Your task to perform on an android device: Search for Mexican restaurants on Maps Image 0: 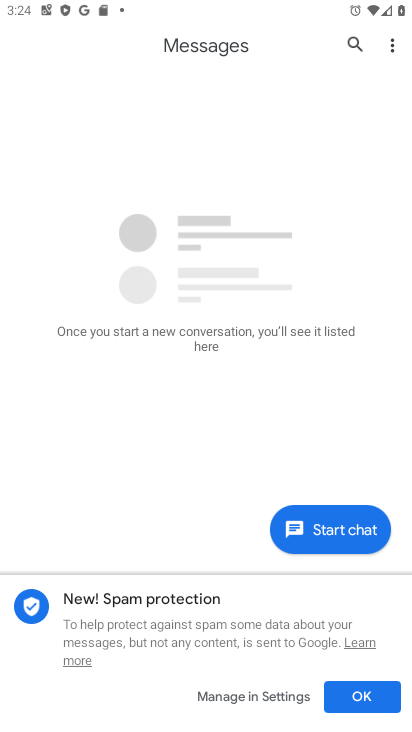
Step 0: press home button
Your task to perform on an android device: Search for Mexican restaurants on Maps Image 1: 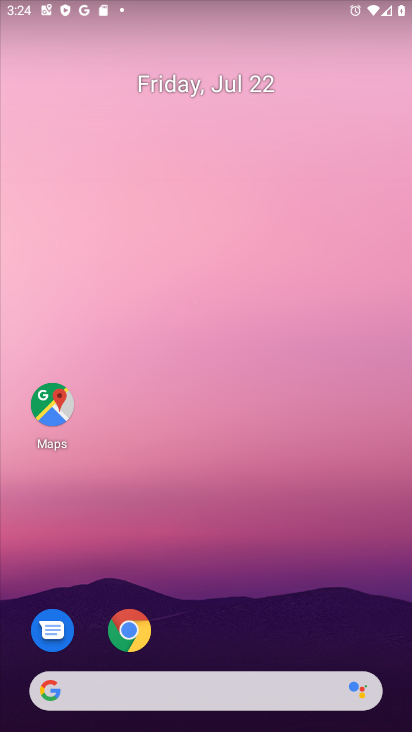
Step 1: click (47, 411)
Your task to perform on an android device: Search for Mexican restaurants on Maps Image 2: 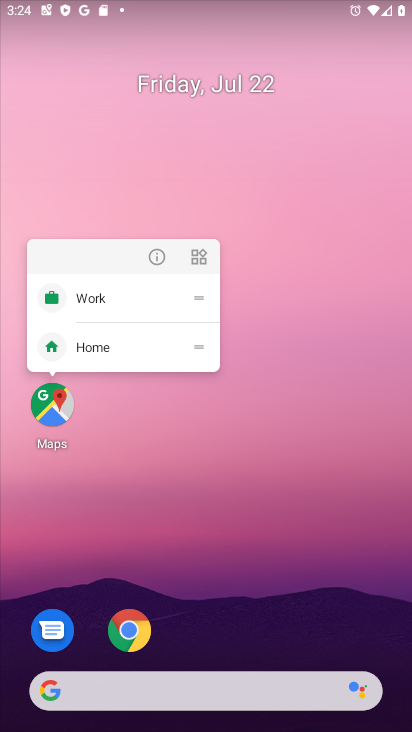
Step 2: click (47, 426)
Your task to perform on an android device: Search for Mexican restaurants on Maps Image 3: 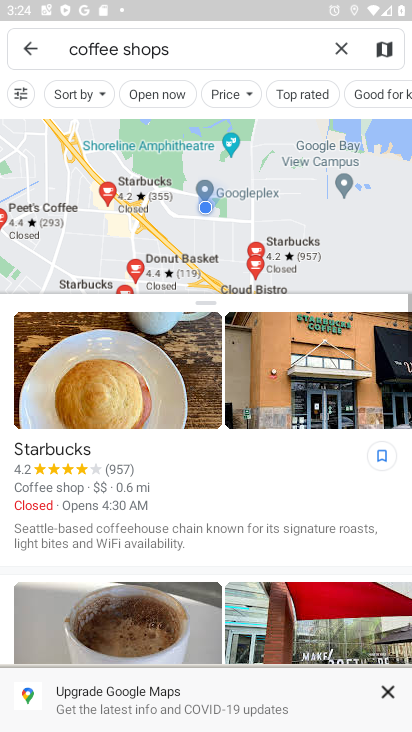
Step 3: click (342, 51)
Your task to perform on an android device: Search for Mexican restaurants on Maps Image 4: 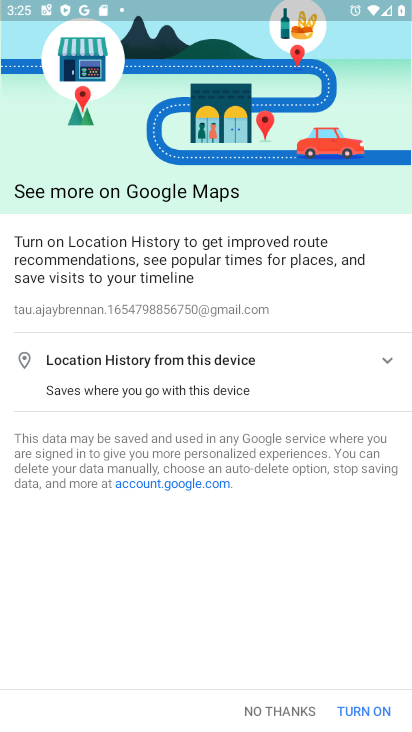
Step 4: click (365, 711)
Your task to perform on an android device: Search for Mexican restaurants on Maps Image 5: 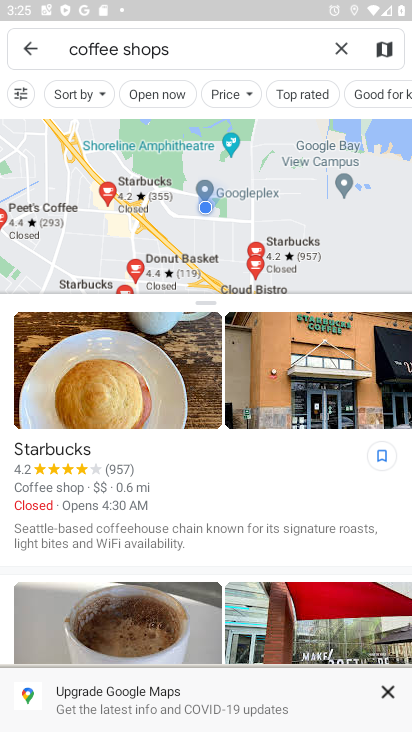
Step 5: click (337, 56)
Your task to perform on an android device: Search for Mexican restaurants on Maps Image 6: 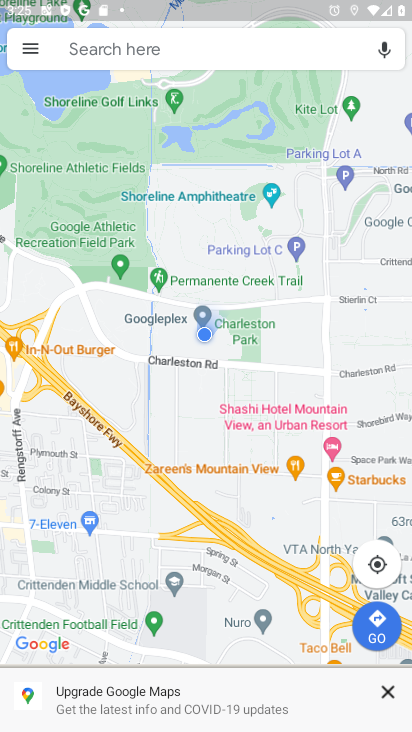
Step 6: click (198, 44)
Your task to perform on an android device: Search for Mexican restaurants on Maps Image 7: 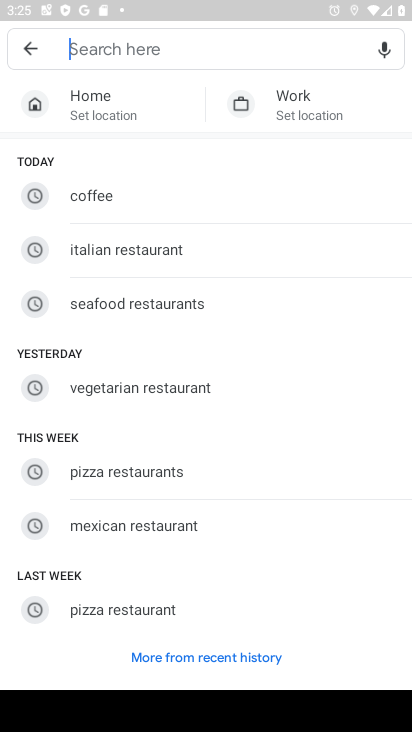
Step 7: click (145, 525)
Your task to perform on an android device: Search for Mexican restaurants on Maps Image 8: 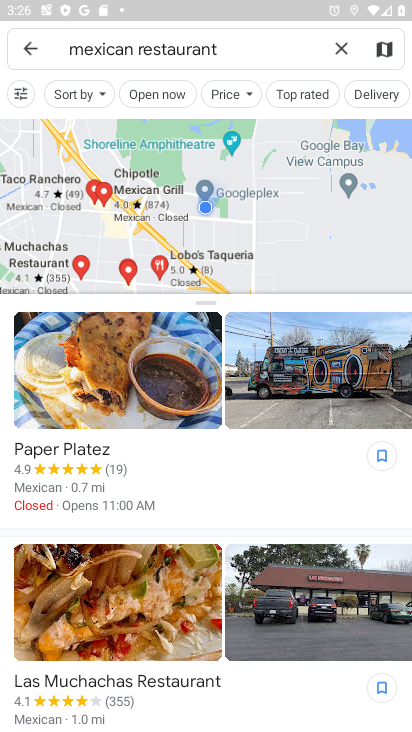
Step 8: task complete